Your task to perform on an android device: turn off wifi Image 0: 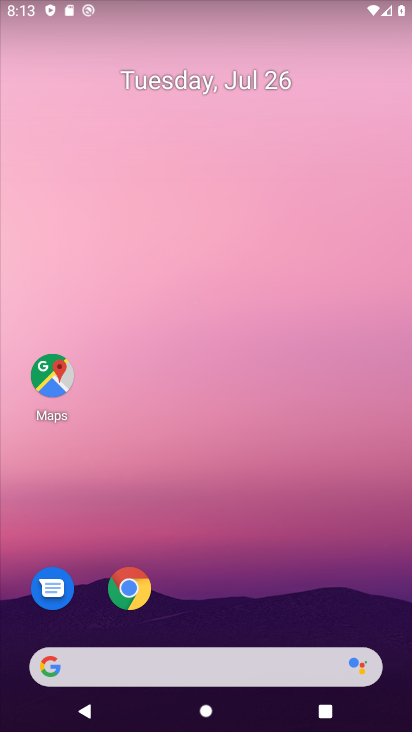
Step 0: drag from (286, 575) to (271, 95)
Your task to perform on an android device: turn off wifi Image 1: 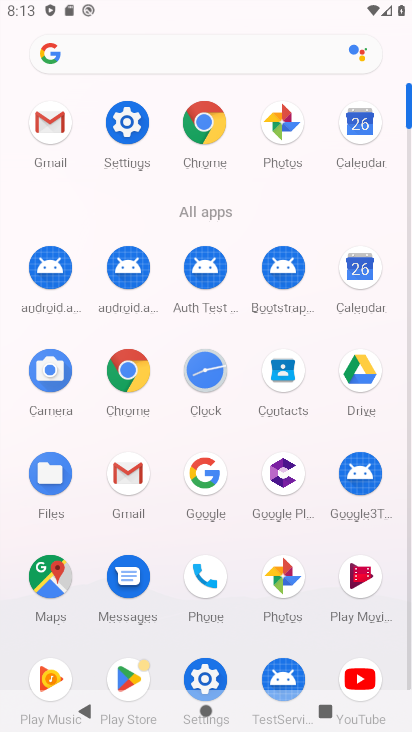
Step 1: click (121, 123)
Your task to perform on an android device: turn off wifi Image 2: 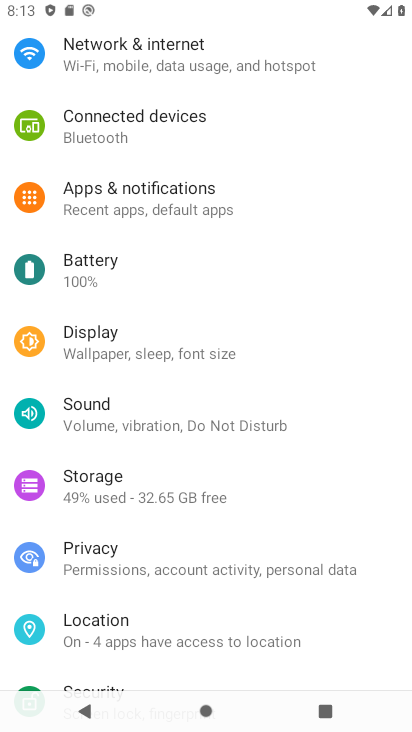
Step 2: click (102, 64)
Your task to perform on an android device: turn off wifi Image 3: 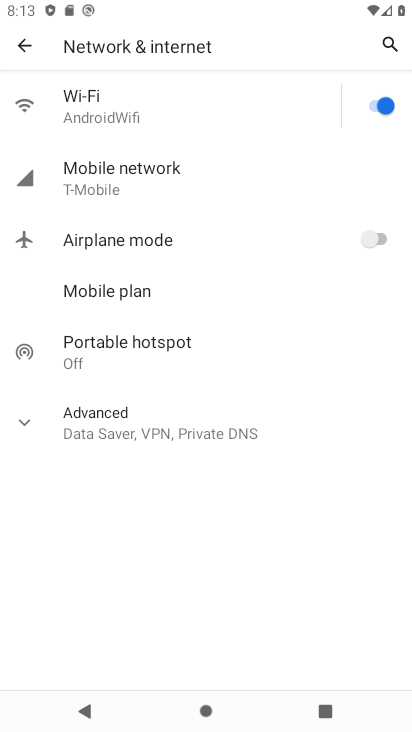
Step 3: click (380, 111)
Your task to perform on an android device: turn off wifi Image 4: 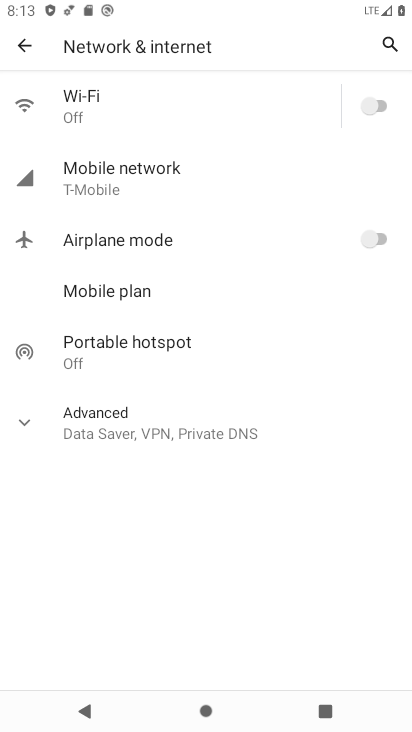
Step 4: task complete